Your task to perform on an android device: open app "PlayWell" (install if not already installed), go to login, and select forgot password Image 0: 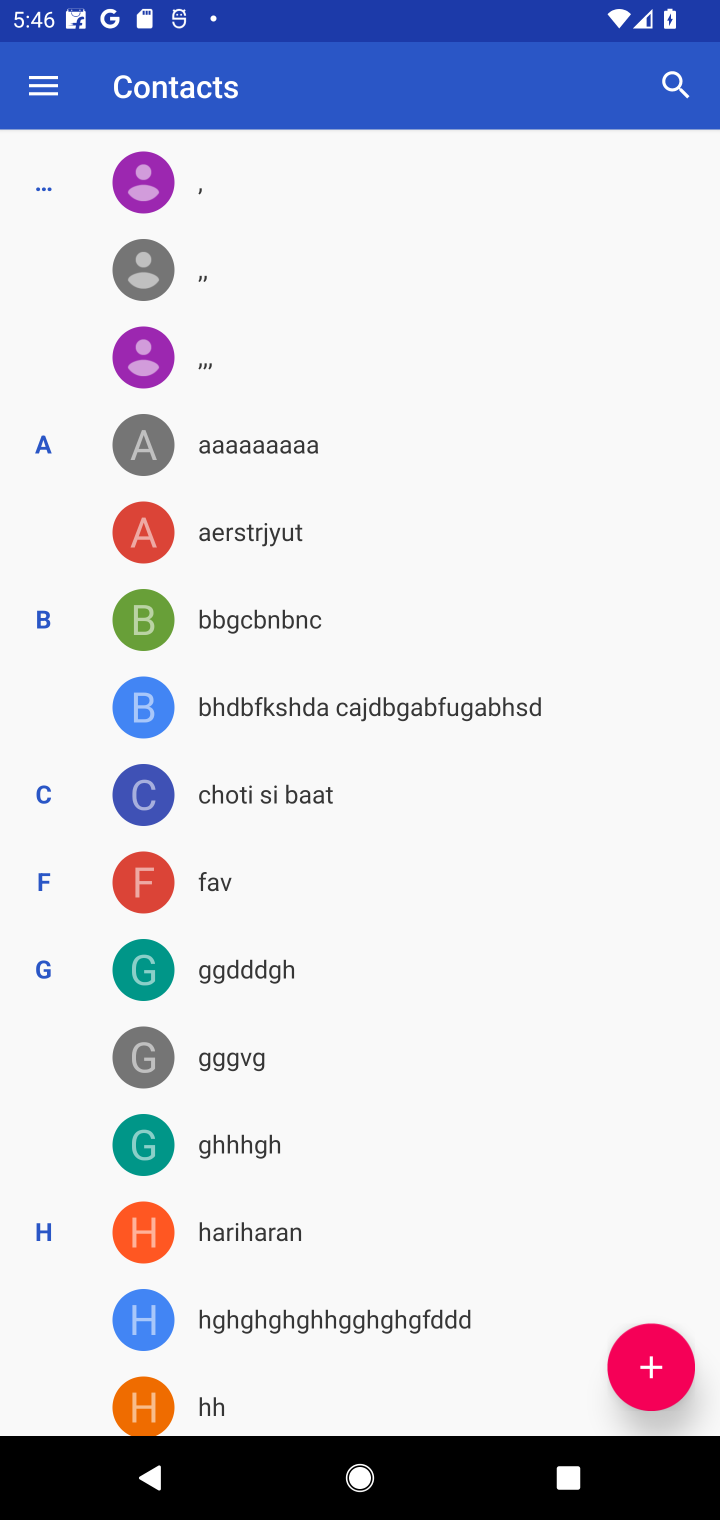
Step 0: task impossible